Your task to perform on an android device: Go to settings Image 0: 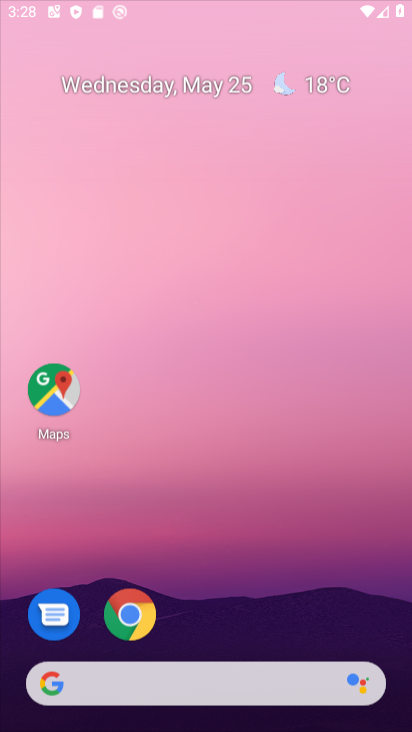
Step 0: click (223, 197)
Your task to perform on an android device: Go to settings Image 1: 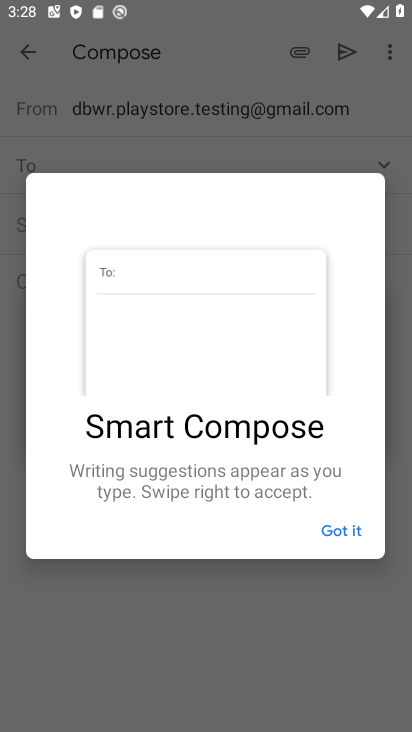
Step 1: click (337, 540)
Your task to perform on an android device: Go to settings Image 2: 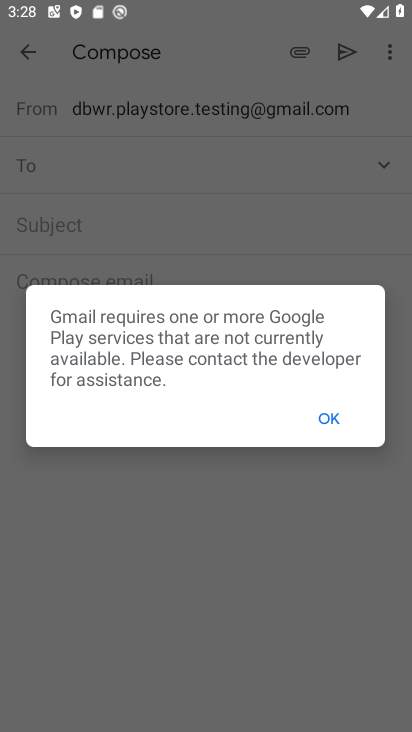
Step 2: click (337, 425)
Your task to perform on an android device: Go to settings Image 3: 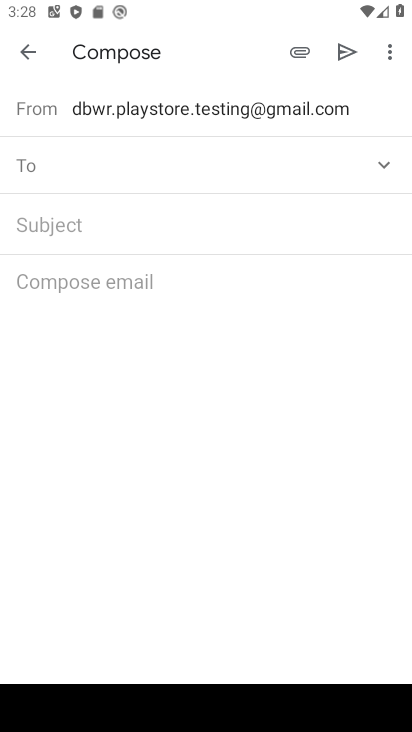
Step 3: press home button
Your task to perform on an android device: Go to settings Image 4: 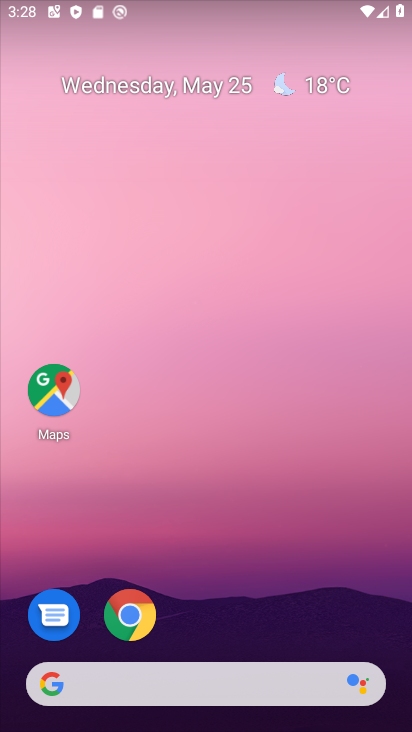
Step 4: drag from (380, 580) to (374, 2)
Your task to perform on an android device: Go to settings Image 5: 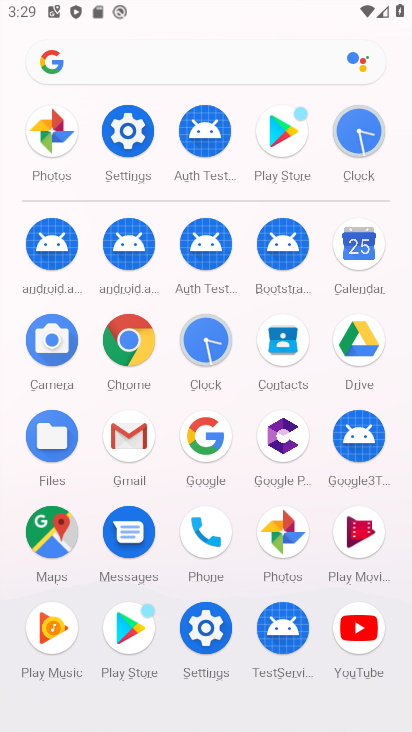
Step 5: click (129, 106)
Your task to perform on an android device: Go to settings Image 6: 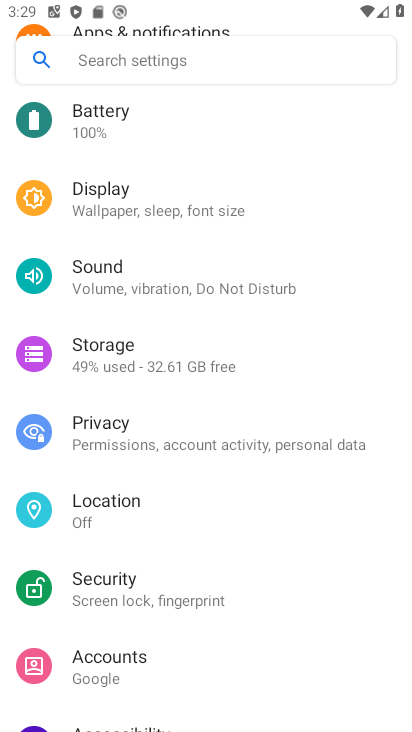
Step 6: click (136, 99)
Your task to perform on an android device: Go to settings Image 7: 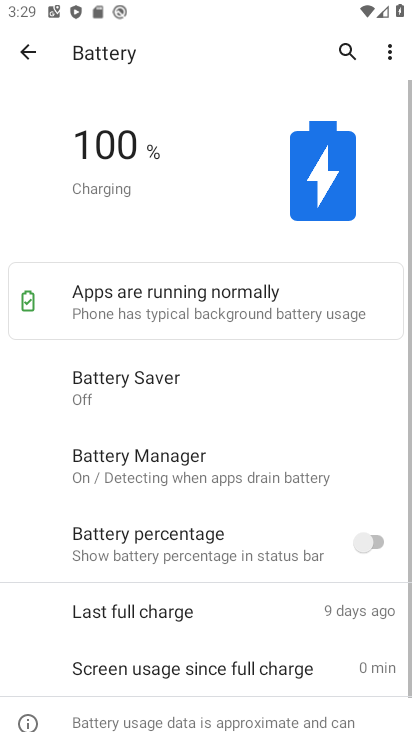
Step 7: task complete